Your task to perform on an android device: change your default location settings in chrome Image 0: 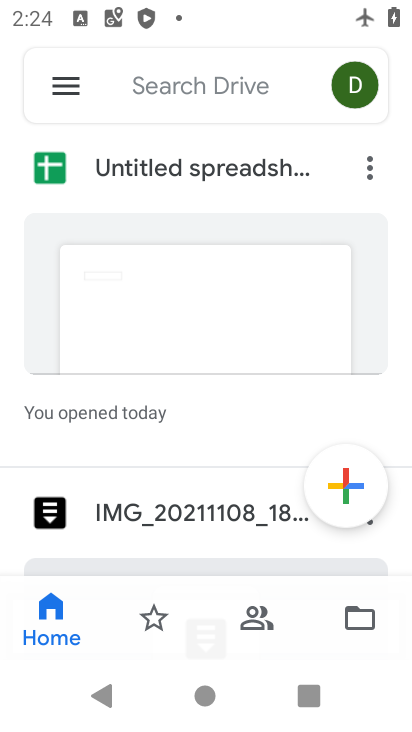
Step 0: press home button
Your task to perform on an android device: change your default location settings in chrome Image 1: 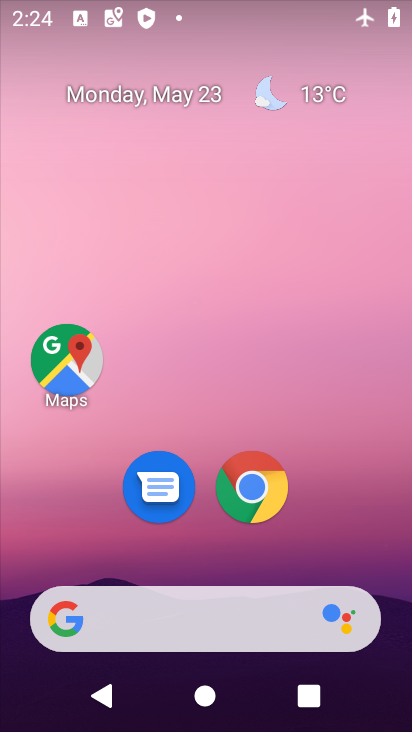
Step 1: click (253, 483)
Your task to perform on an android device: change your default location settings in chrome Image 2: 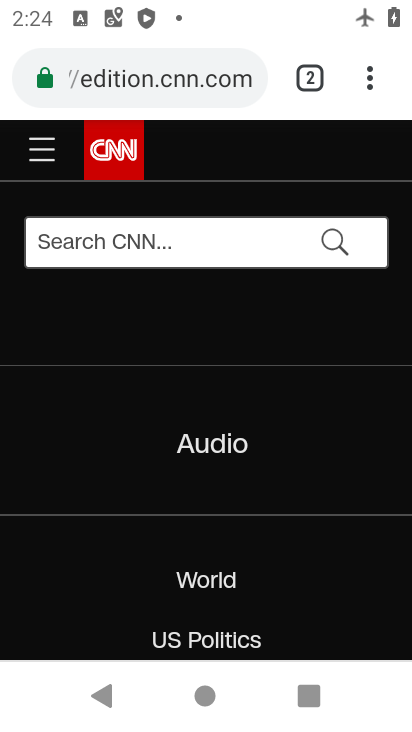
Step 2: click (362, 75)
Your task to perform on an android device: change your default location settings in chrome Image 3: 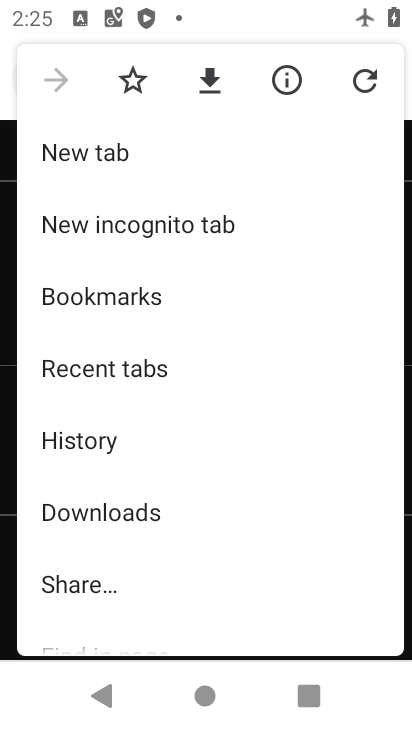
Step 3: drag from (123, 600) to (170, 292)
Your task to perform on an android device: change your default location settings in chrome Image 4: 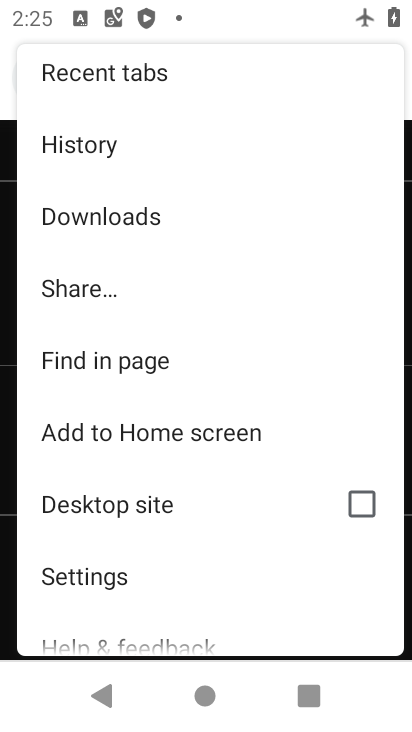
Step 4: drag from (215, 574) to (232, 268)
Your task to perform on an android device: change your default location settings in chrome Image 5: 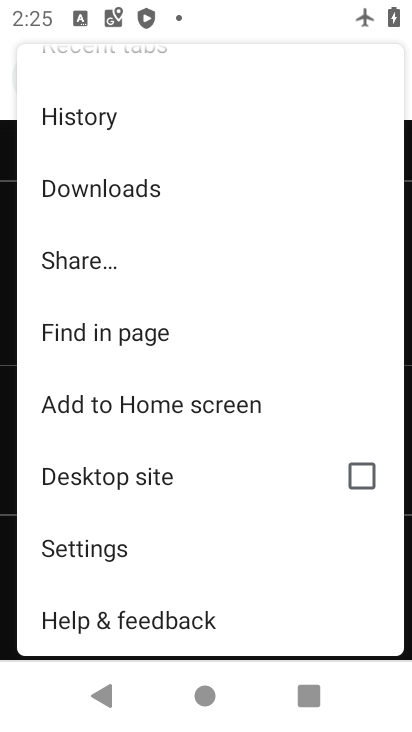
Step 5: click (93, 560)
Your task to perform on an android device: change your default location settings in chrome Image 6: 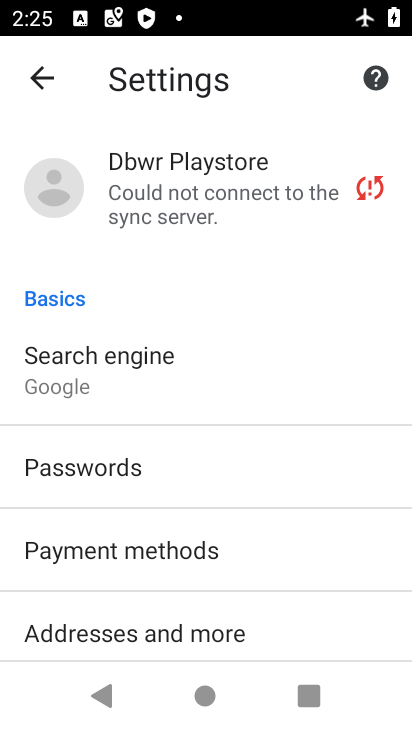
Step 6: drag from (315, 607) to (280, 96)
Your task to perform on an android device: change your default location settings in chrome Image 7: 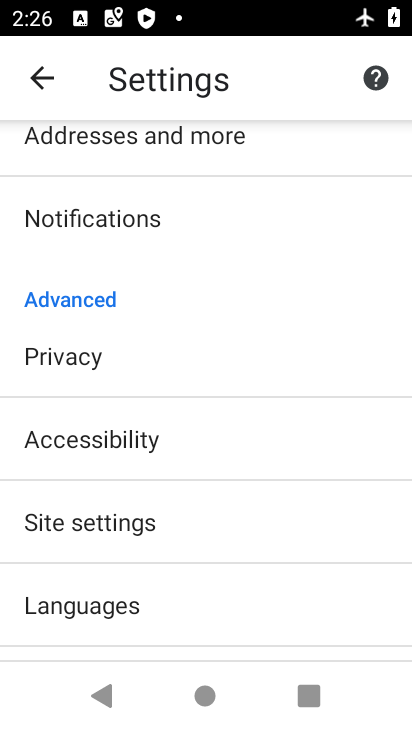
Step 7: drag from (109, 609) to (158, 296)
Your task to perform on an android device: change your default location settings in chrome Image 8: 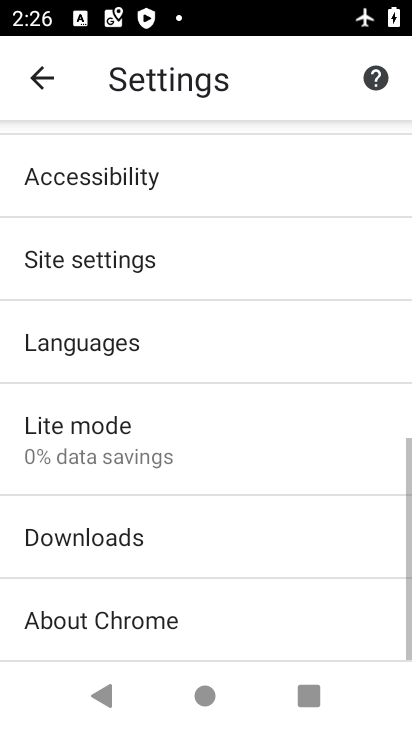
Step 8: click (62, 248)
Your task to perform on an android device: change your default location settings in chrome Image 9: 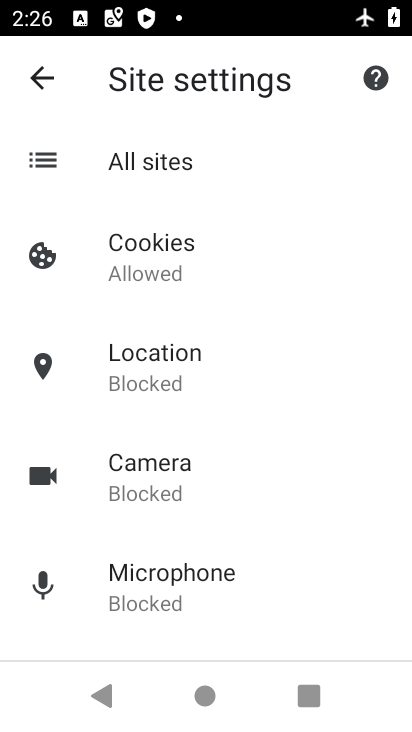
Step 9: click (130, 352)
Your task to perform on an android device: change your default location settings in chrome Image 10: 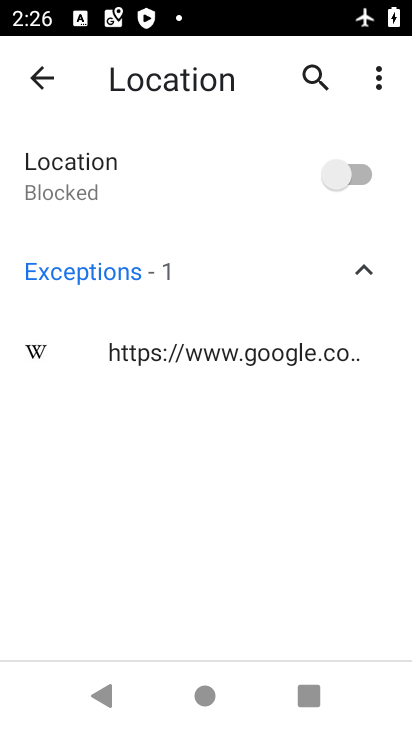
Step 10: click (363, 169)
Your task to perform on an android device: change your default location settings in chrome Image 11: 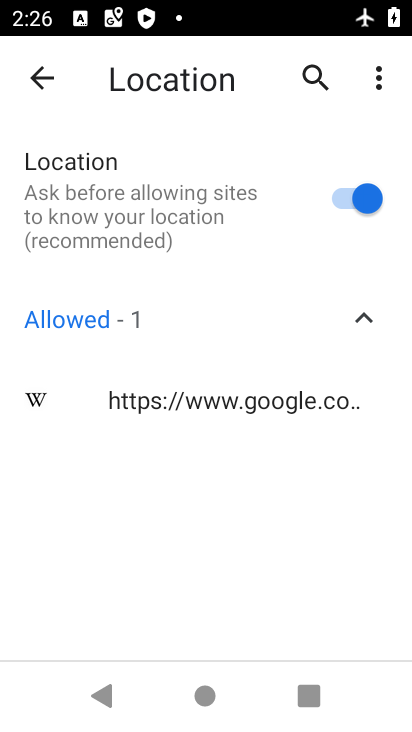
Step 11: task complete